Your task to perform on an android device: move a message to another label in the gmail app Image 0: 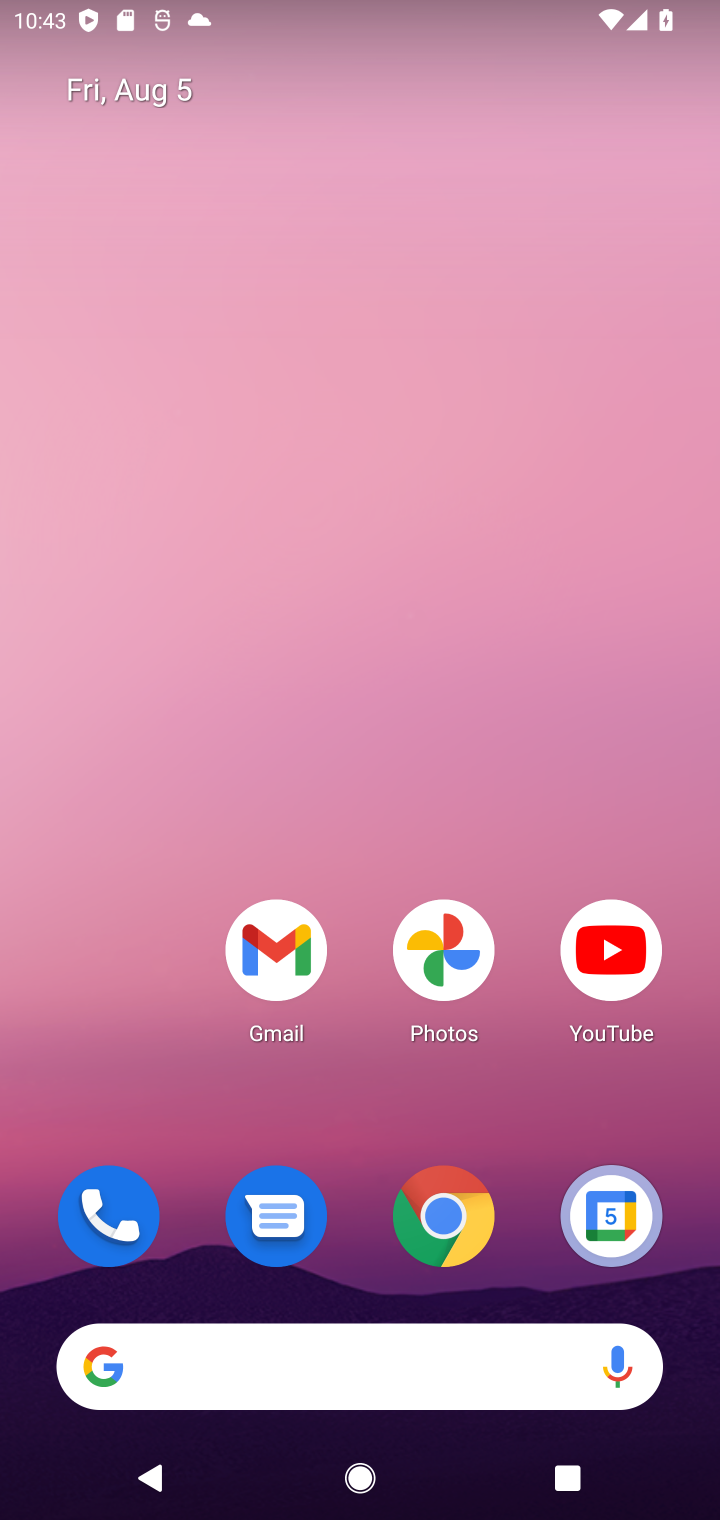
Step 0: drag from (397, 1381) to (397, 540)
Your task to perform on an android device: move a message to another label in the gmail app Image 1: 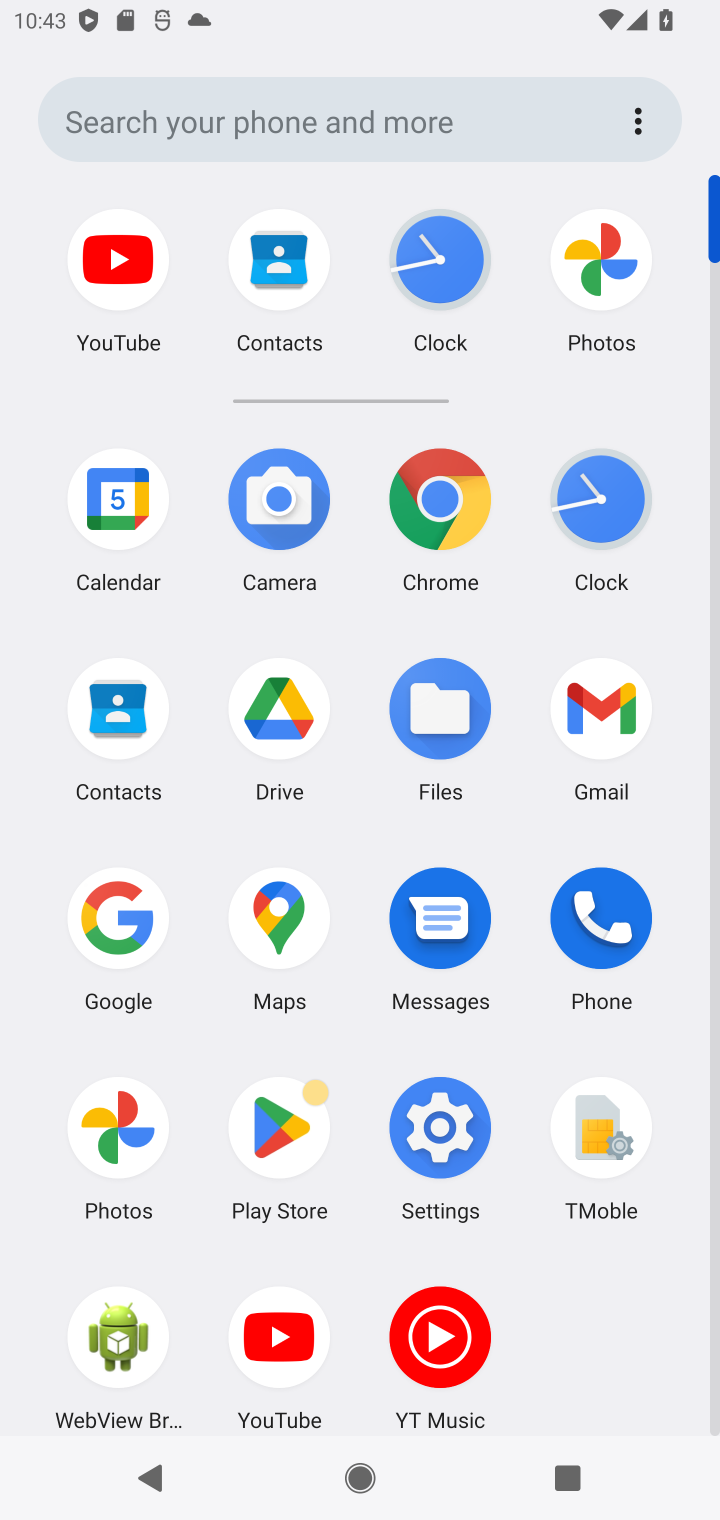
Step 1: click (626, 695)
Your task to perform on an android device: move a message to another label in the gmail app Image 2: 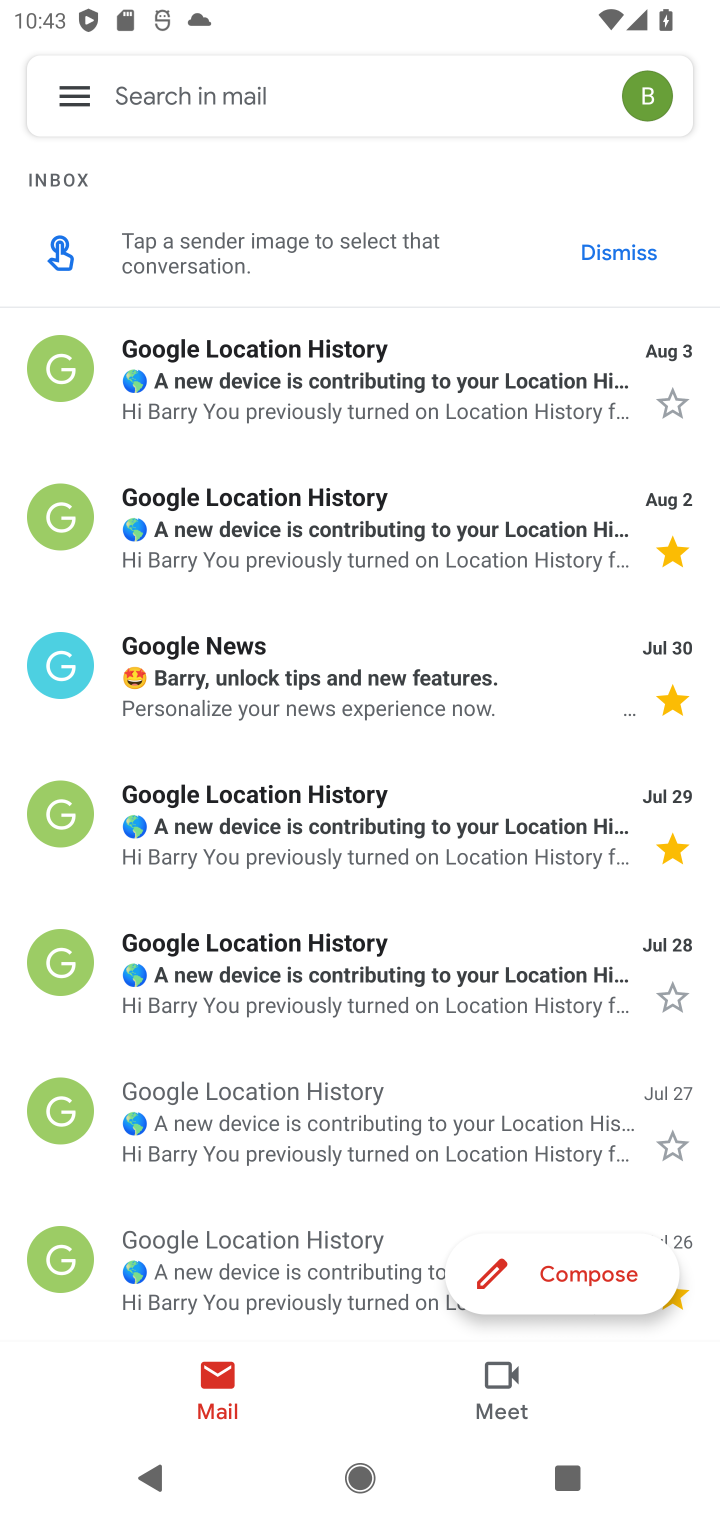
Step 2: click (426, 389)
Your task to perform on an android device: move a message to another label in the gmail app Image 3: 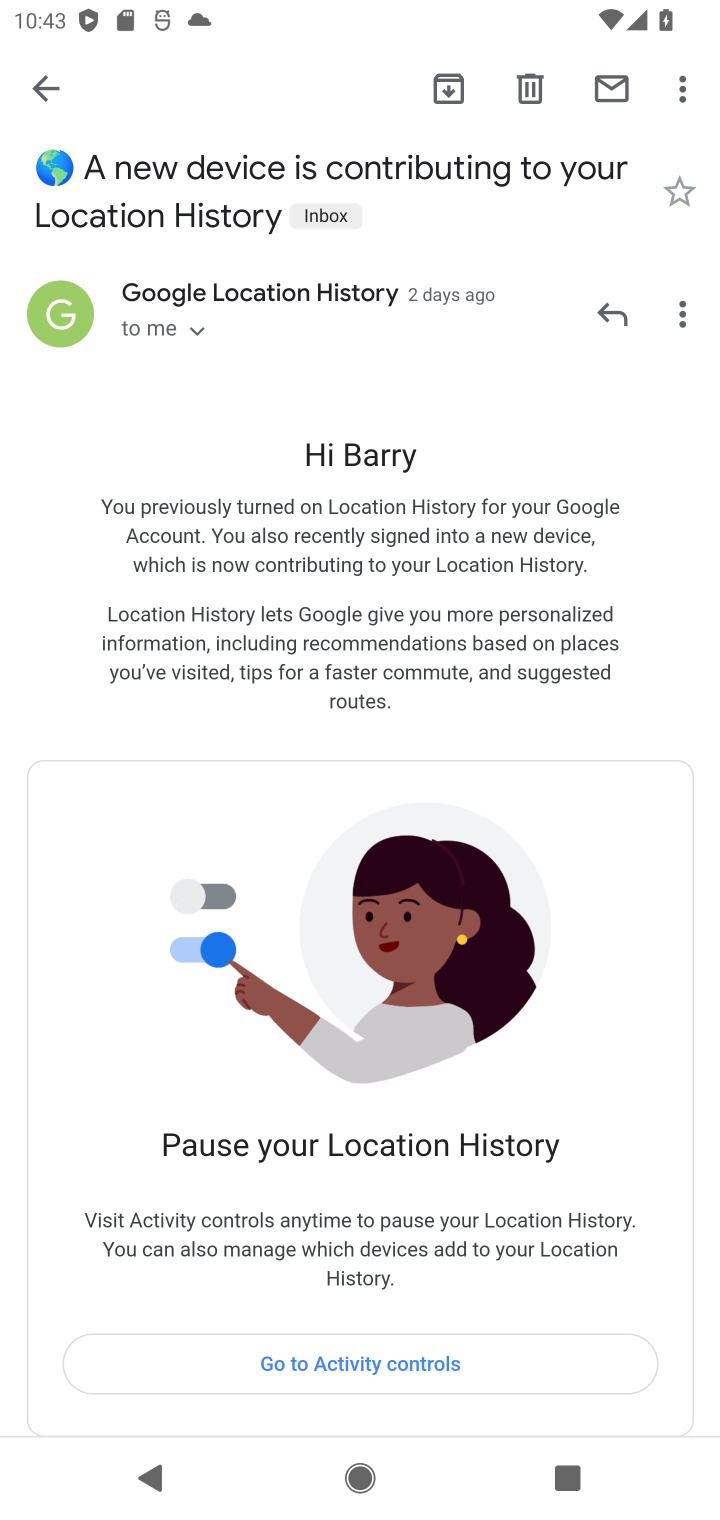
Step 3: click (669, 84)
Your task to perform on an android device: move a message to another label in the gmail app Image 4: 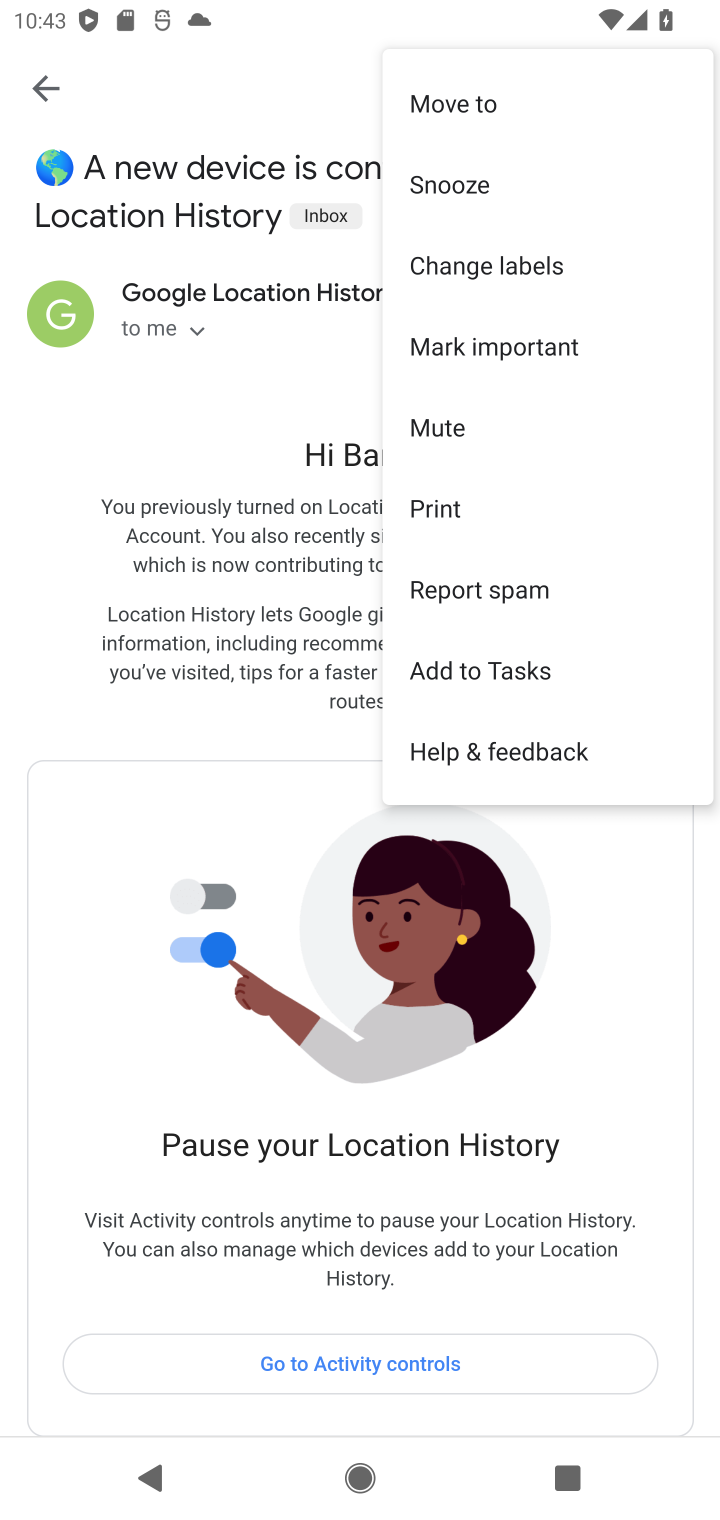
Step 4: click (487, 267)
Your task to perform on an android device: move a message to another label in the gmail app Image 5: 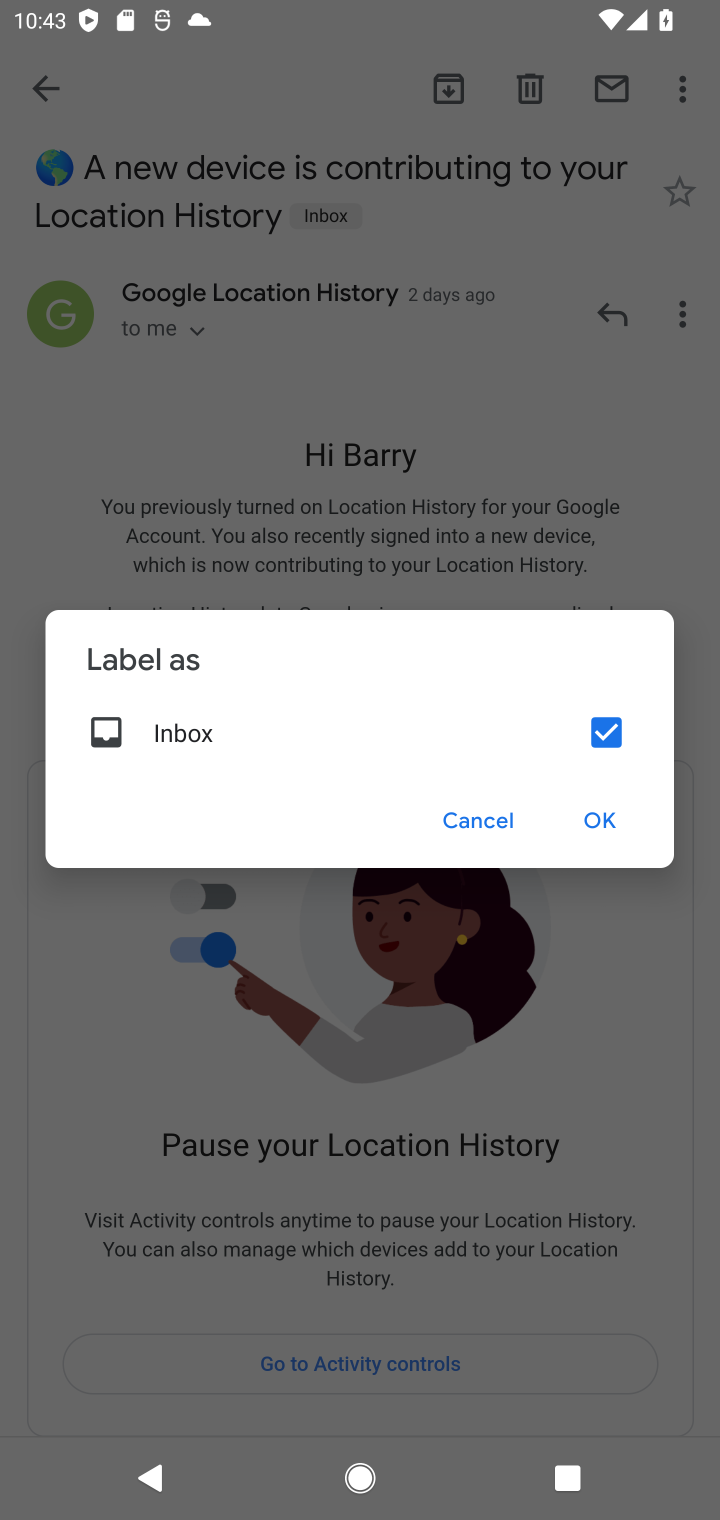
Step 5: click (594, 813)
Your task to perform on an android device: move a message to another label in the gmail app Image 6: 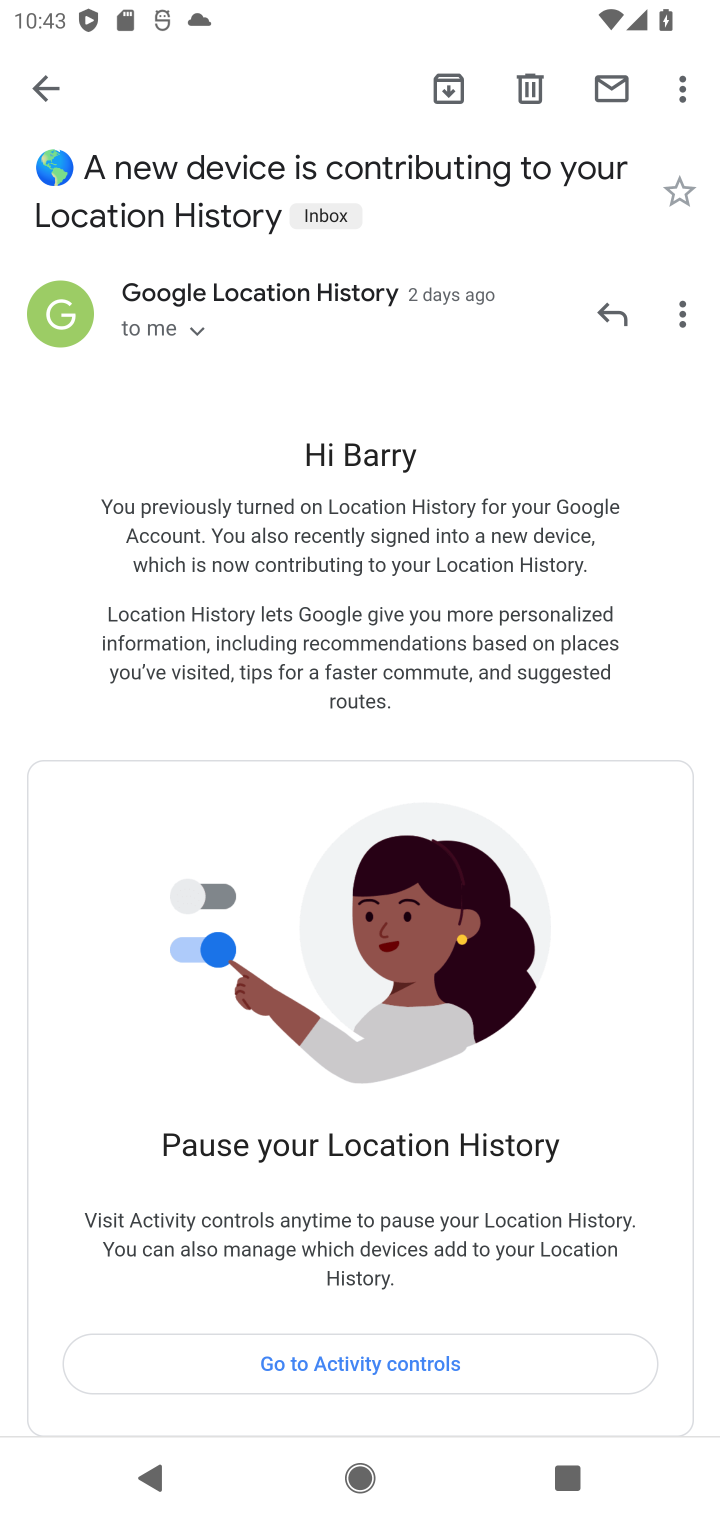
Step 6: task complete